Your task to perform on an android device: open app "LinkedIn" (install if not already installed) Image 0: 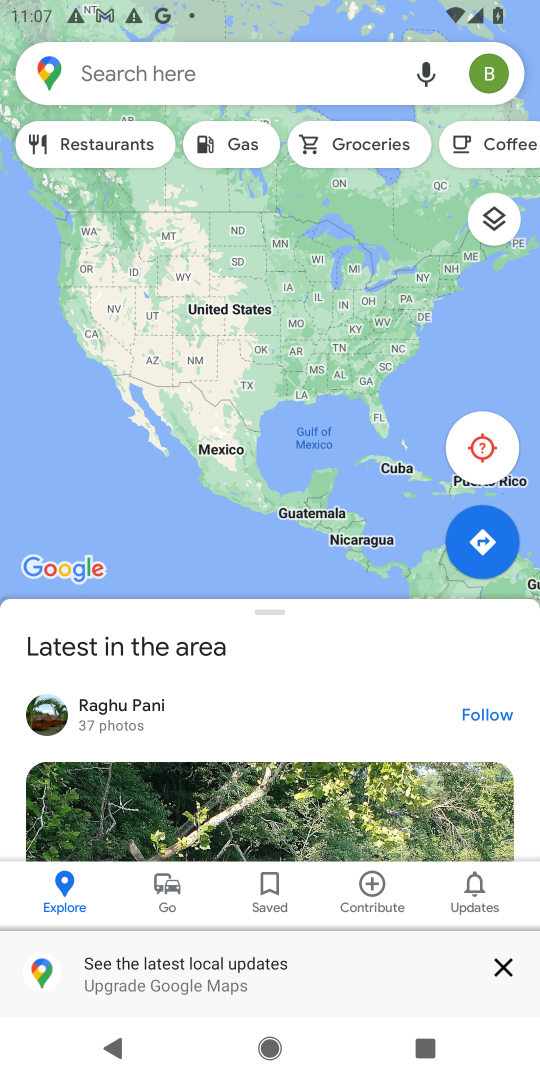
Step 0: press home button
Your task to perform on an android device: open app "LinkedIn" (install if not already installed) Image 1: 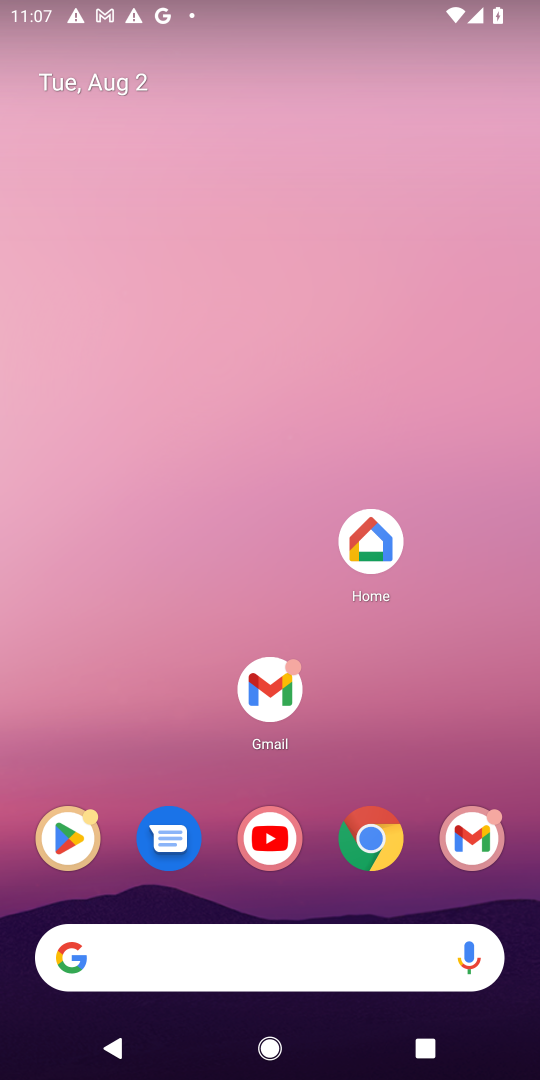
Step 1: drag from (131, 737) to (171, 137)
Your task to perform on an android device: open app "LinkedIn" (install if not already installed) Image 2: 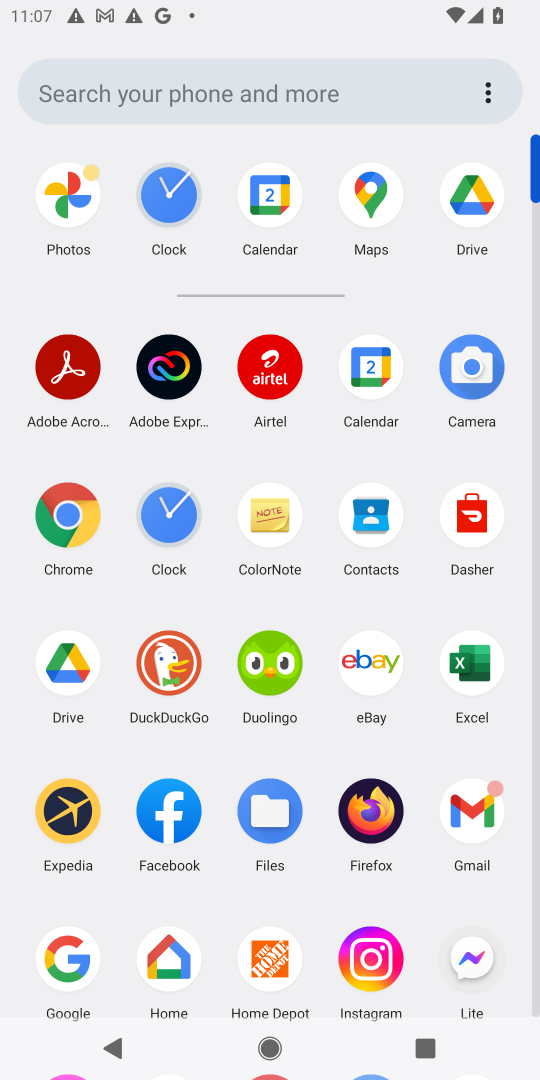
Step 2: drag from (222, 901) to (217, 508)
Your task to perform on an android device: open app "LinkedIn" (install if not already installed) Image 3: 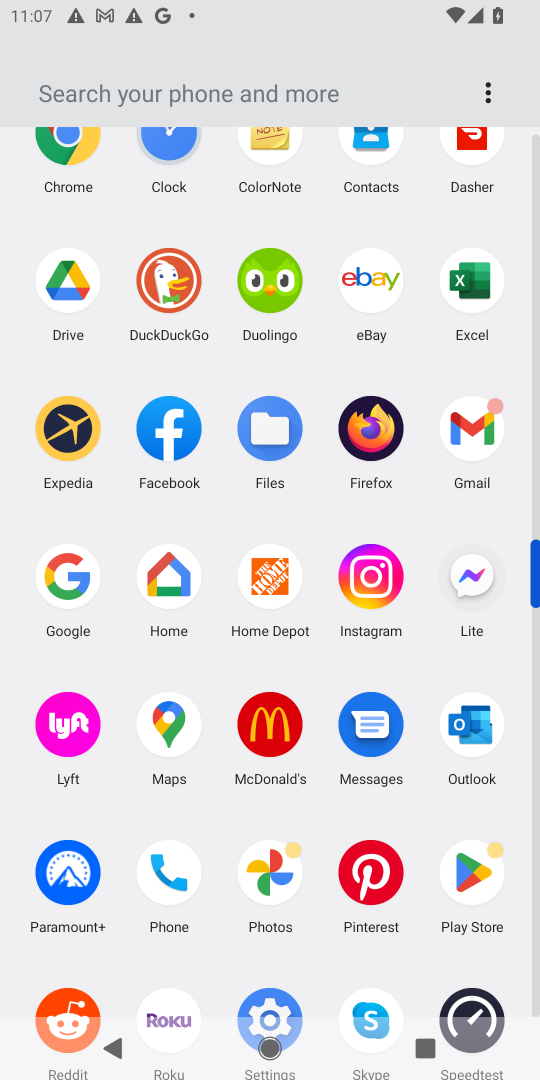
Step 3: drag from (208, 948) to (199, 656)
Your task to perform on an android device: open app "LinkedIn" (install if not already installed) Image 4: 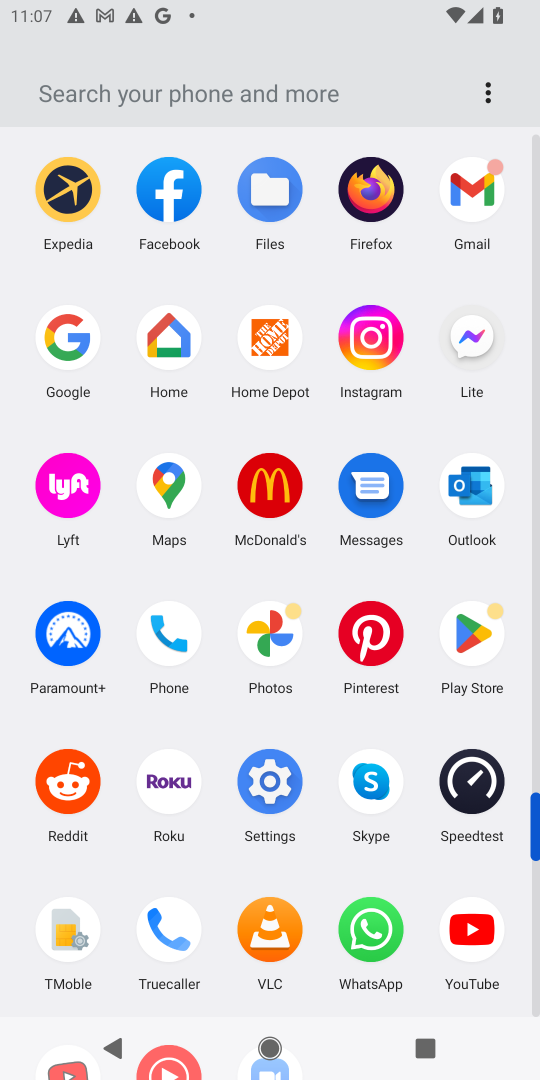
Step 4: click (479, 638)
Your task to perform on an android device: open app "LinkedIn" (install if not already installed) Image 5: 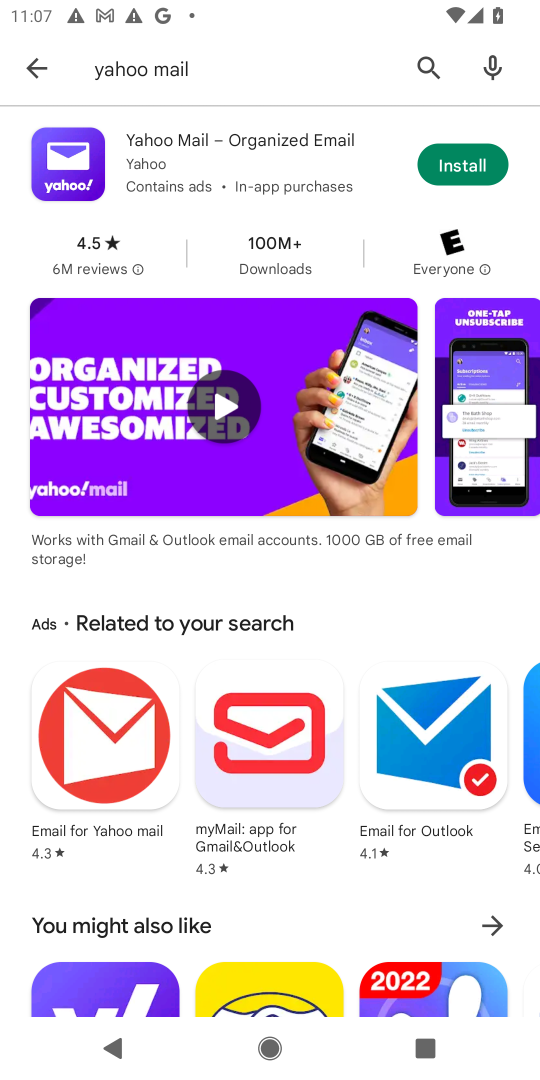
Step 5: click (423, 65)
Your task to perform on an android device: open app "LinkedIn" (install if not already installed) Image 6: 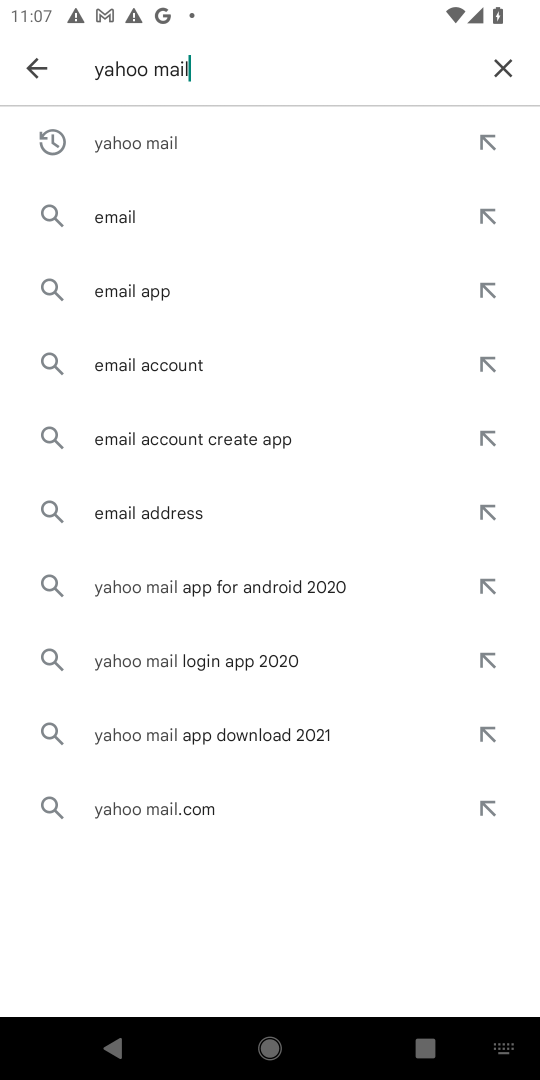
Step 6: click (513, 73)
Your task to perform on an android device: open app "LinkedIn" (install if not already installed) Image 7: 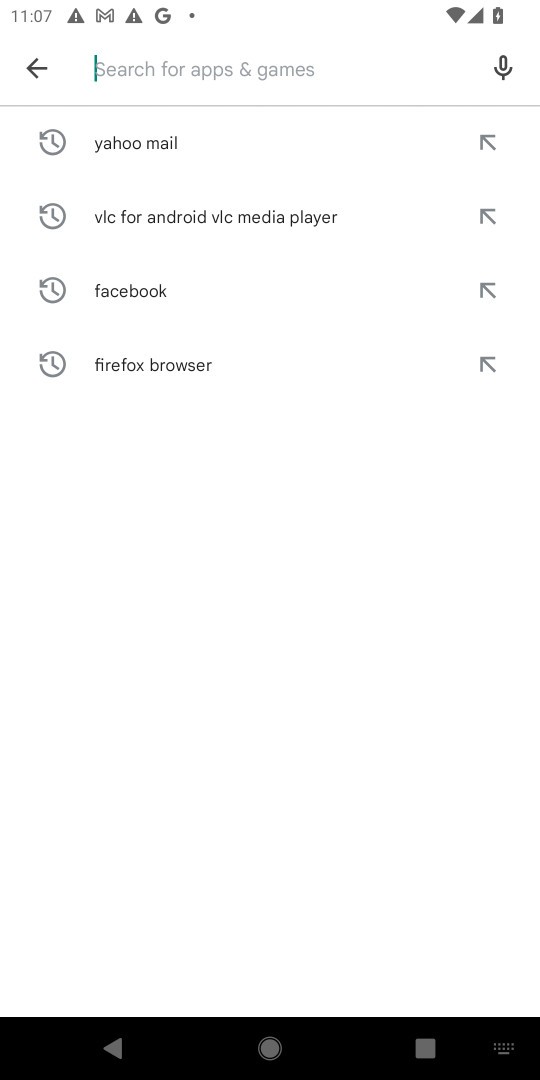
Step 7: click (369, 64)
Your task to perform on an android device: open app "LinkedIn" (install if not already installed) Image 8: 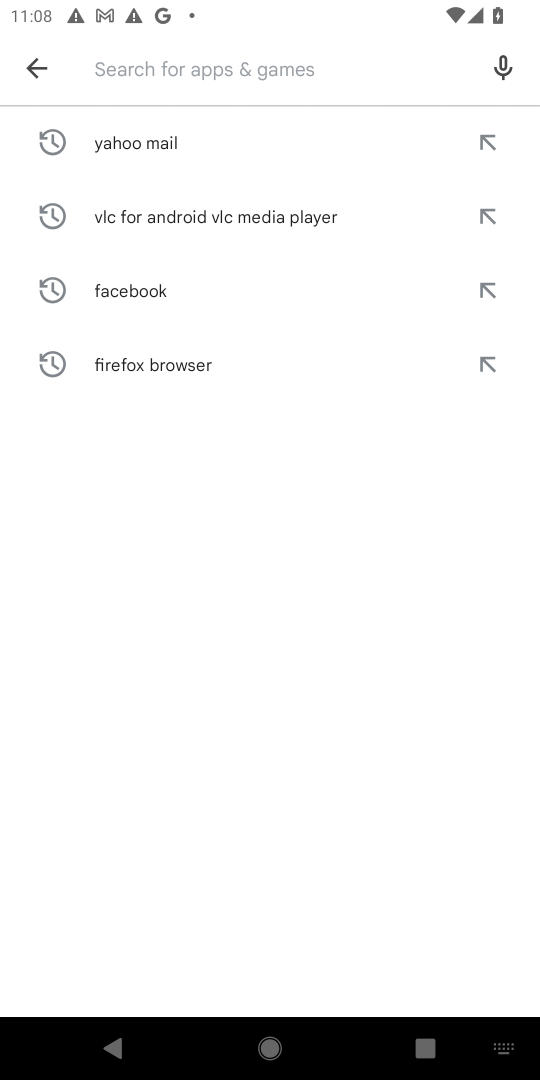
Step 8: type "linkedin "
Your task to perform on an android device: open app "LinkedIn" (install if not already installed) Image 9: 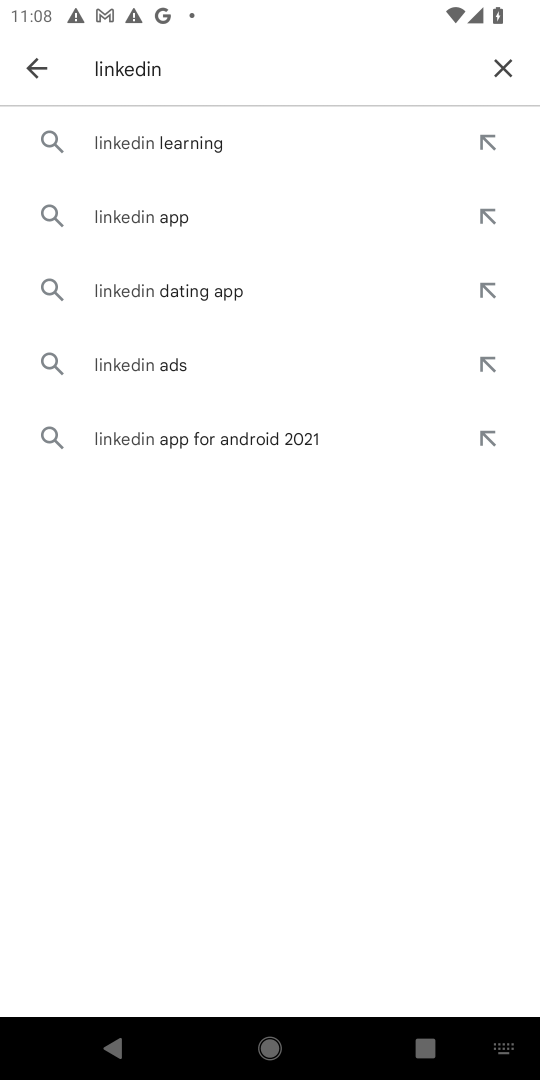
Step 9: click (235, 216)
Your task to perform on an android device: open app "LinkedIn" (install if not already installed) Image 10: 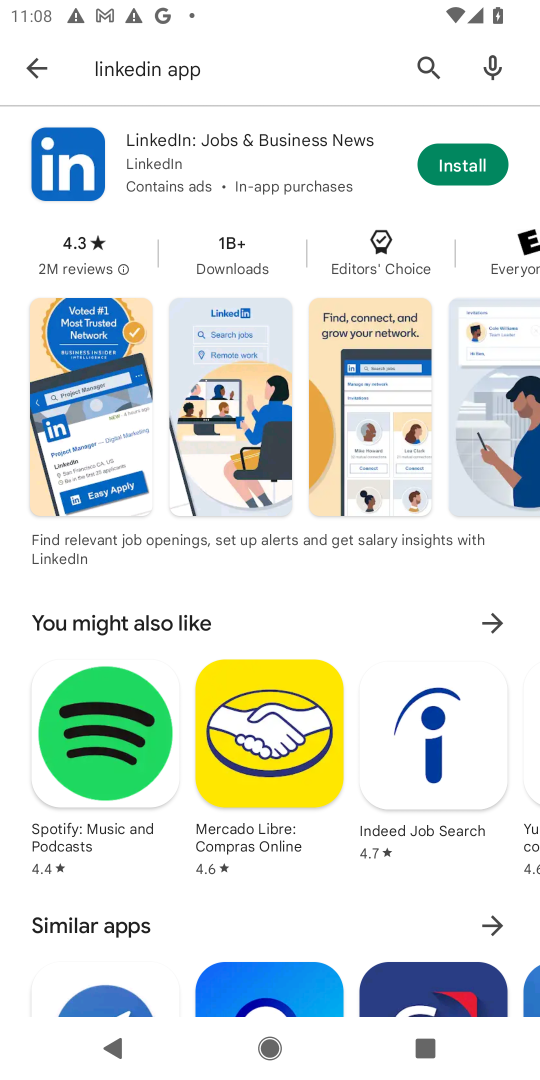
Step 10: click (449, 163)
Your task to perform on an android device: open app "LinkedIn" (install if not already installed) Image 11: 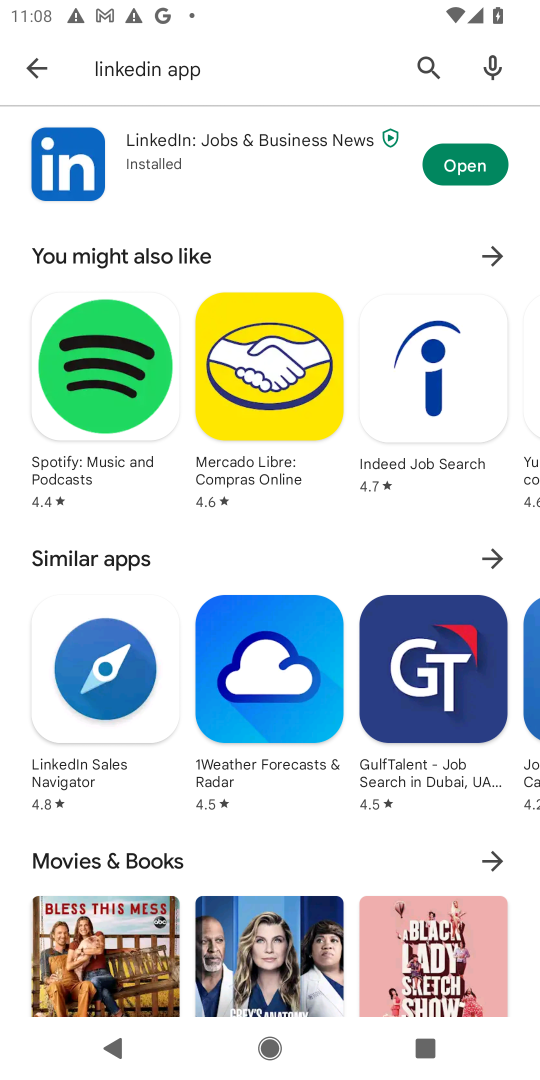
Step 11: click (477, 161)
Your task to perform on an android device: open app "LinkedIn" (install if not already installed) Image 12: 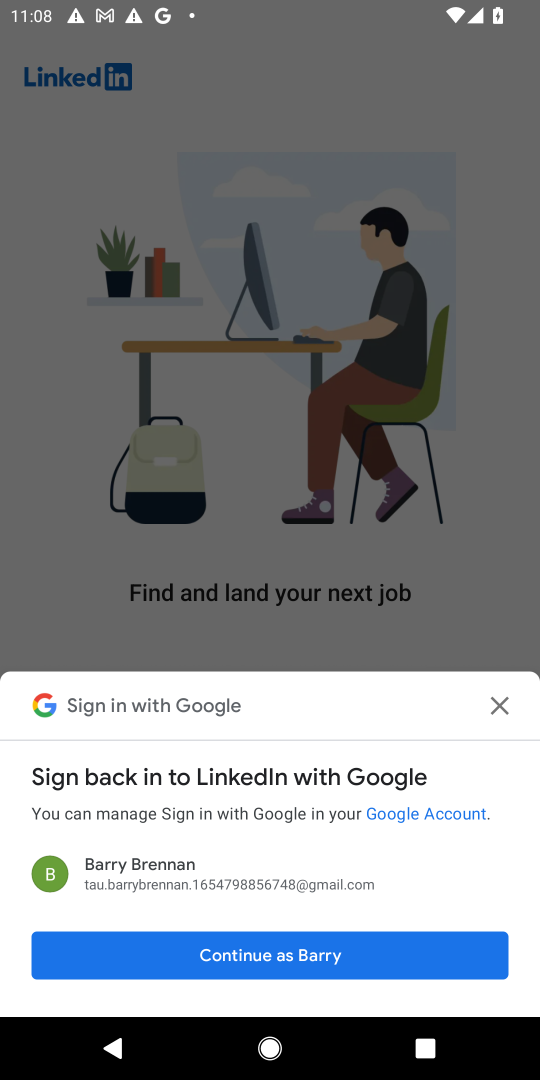
Step 12: task complete